Your task to perform on an android device: set the timer Image 0: 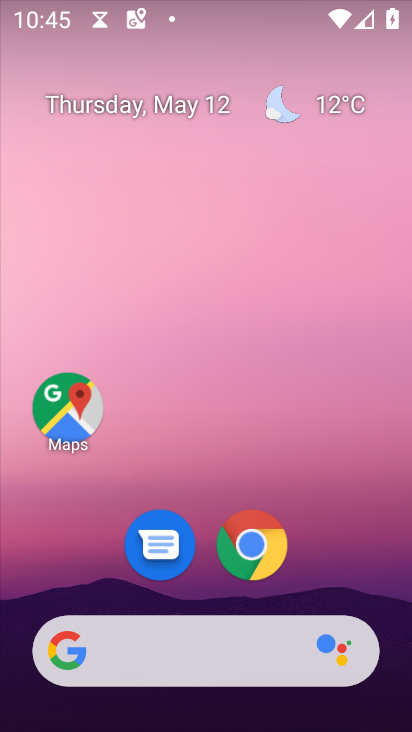
Step 0: drag from (197, 582) to (209, 86)
Your task to perform on an android device: set the timer Image 1: 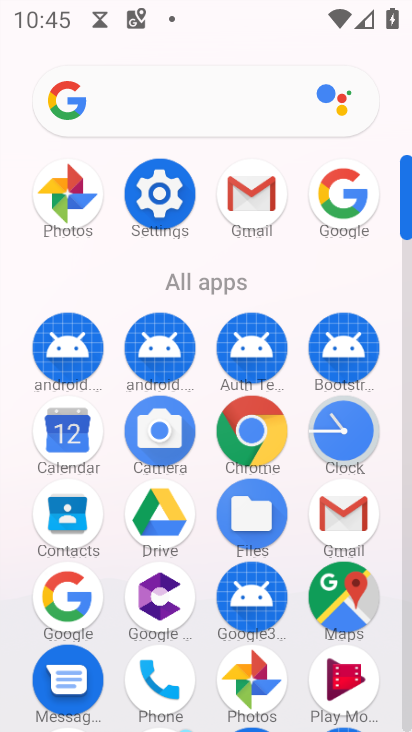
Step 1: click (338, 491)
Your task to perform on an android device: set the timer Image 2: 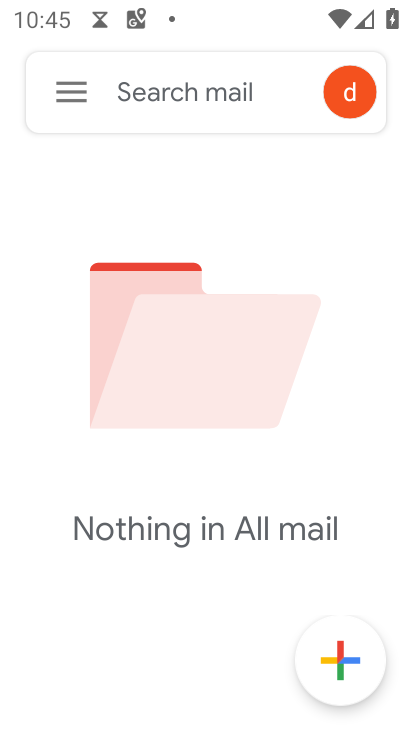
Step 2: press home button
Your task to perform on an android device: set the timer Image 3: 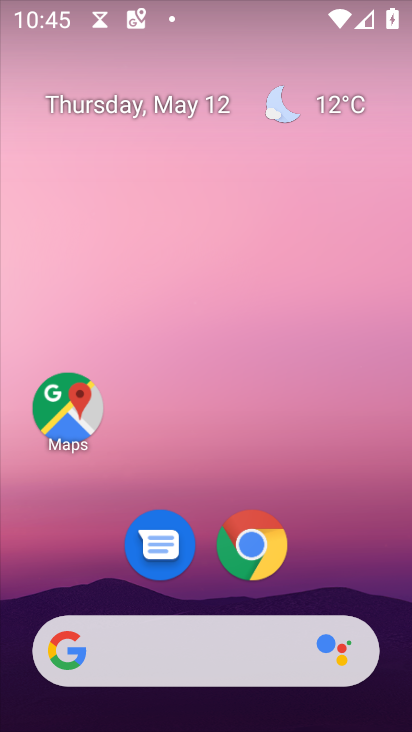
Step 3: drag from (208, 586) to (210, 216)
Your task to perform on an android device: set the timer Image 4: 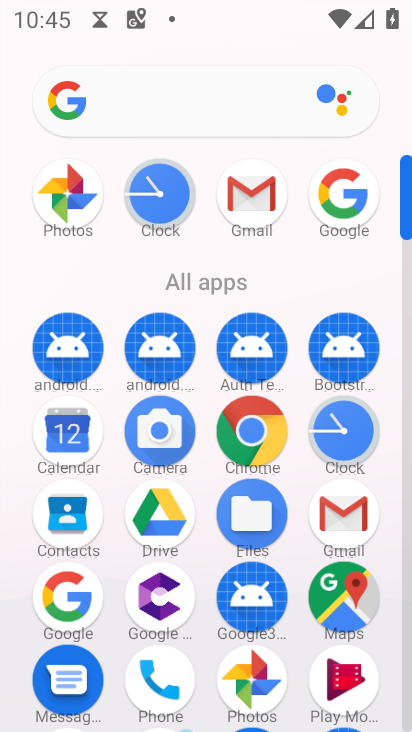
Step 4: click (152, 187)
Your task to perform on an android device: set the timer Image 5: 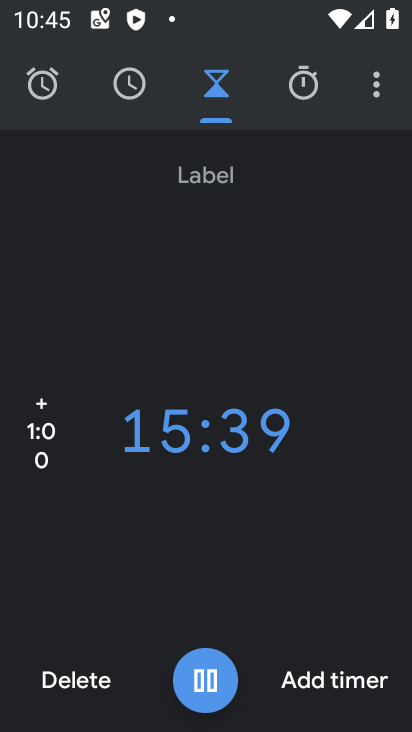
Step 5: click (85, 677)
Your task to perform on an android device: set the timer Image 6: 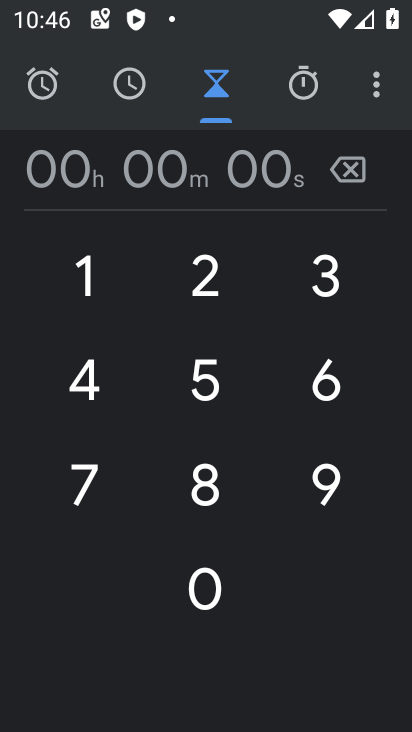
Step 6: click (321, 283)
Your task to perform on an android device: set the timer Image 7: 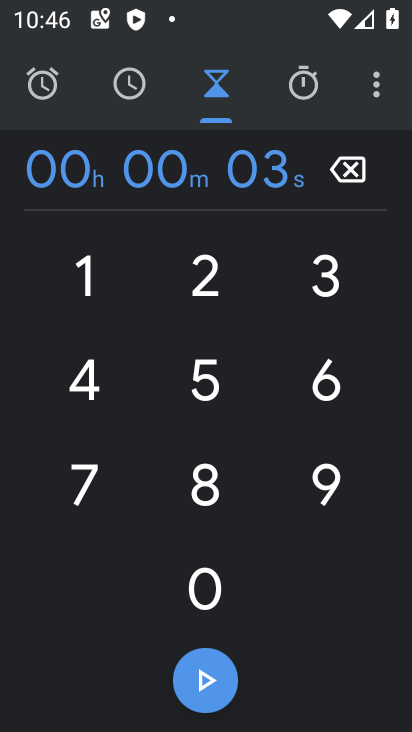
Step 7: click (207, 605)
Your task to perform on an android device: set the timer Image 8: 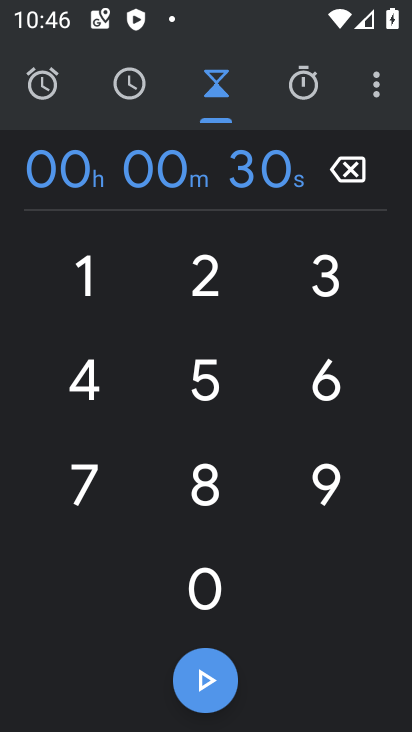
Step 8: click (200, 599)
Your task to perform on an android device: set the timer Image 9: 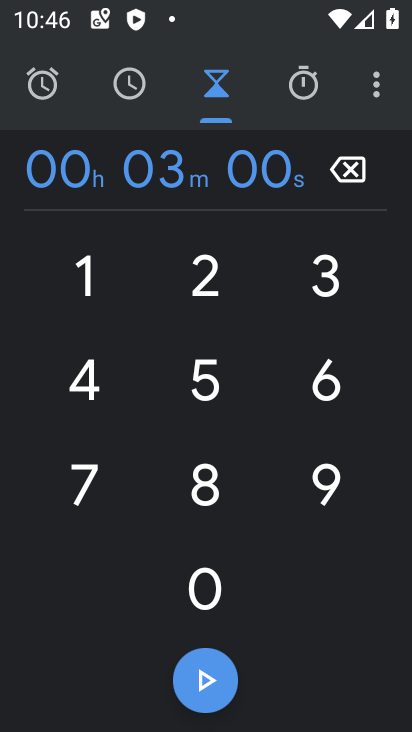
Step 9: click (198, 678)
Your task to perform on an android device: set the timer Image 10: 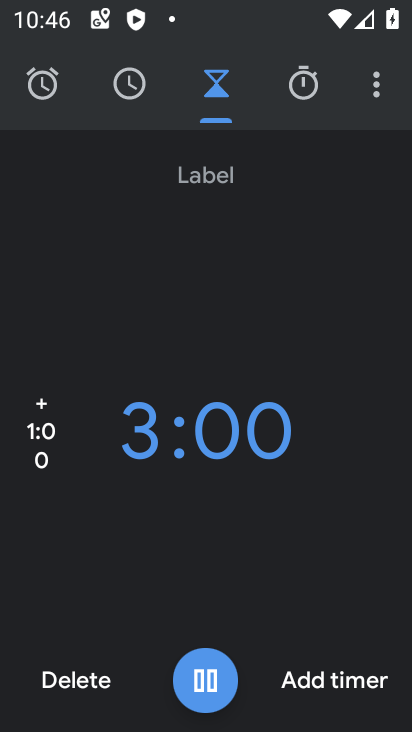
Step 10: task complete